Your task to perform on an android device: Open privacy settings Image 0: 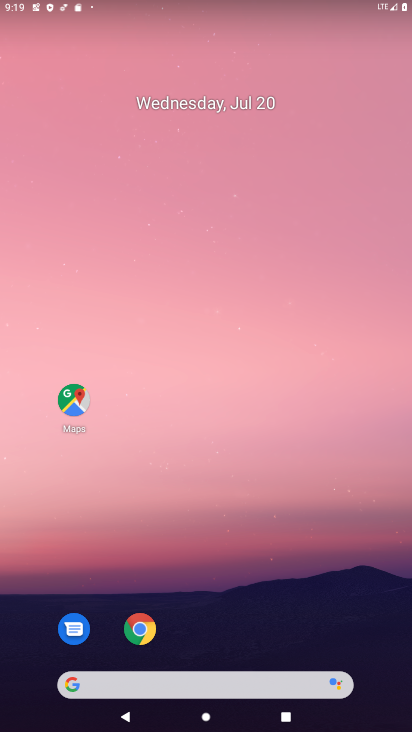
Step 0: drag from (253, 618) to (401, 11)
Your task to perform on an android device: Open privacy settings Image 1: 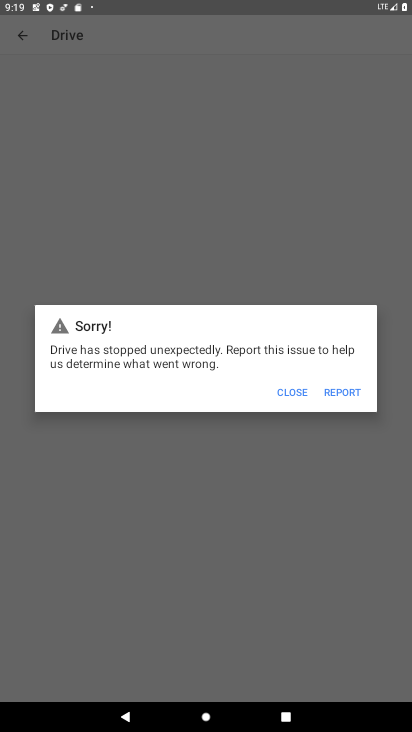
Step 1: press home button
Your task to perform on an android device: Open privacy settings Image 2: 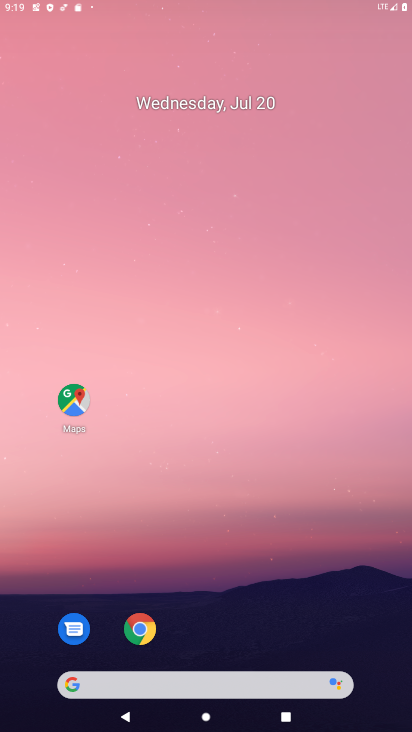
Step 2: drag from (249, 634) to (265, 23)
Your task to perform on an android device: Open privacy settings Image 3: 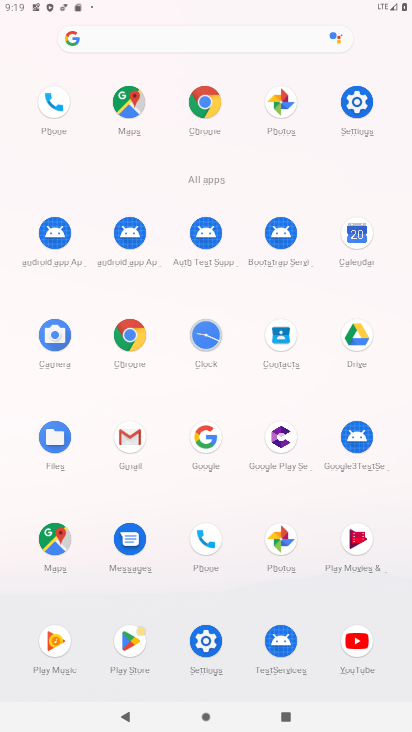
Step 3: click (176, 645)
Your task to perform on an android device: Open privacy settings Image 4: 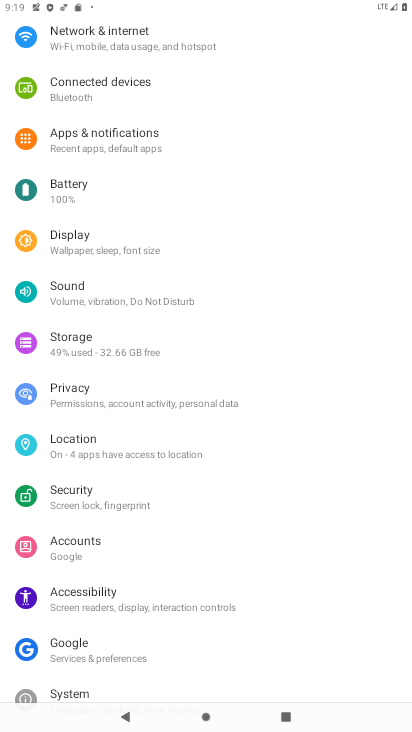
Step 4: click (63, 413)
Your task to perform on an android device: Open privacy settings Image 5: 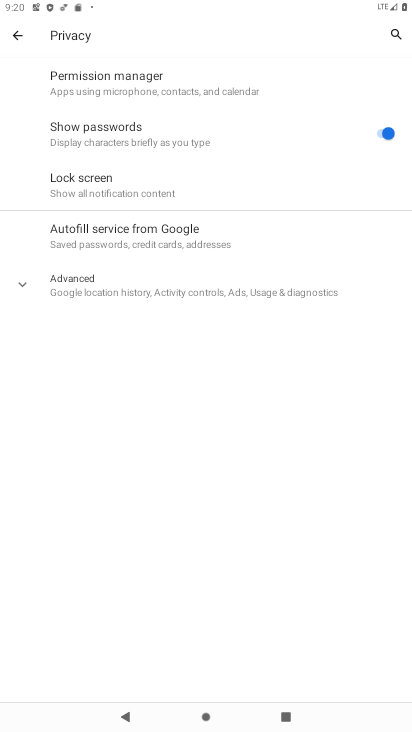
Step 5: task complete